Your task to perform on an android device: Is it going to rain tomorrow? Image 0: 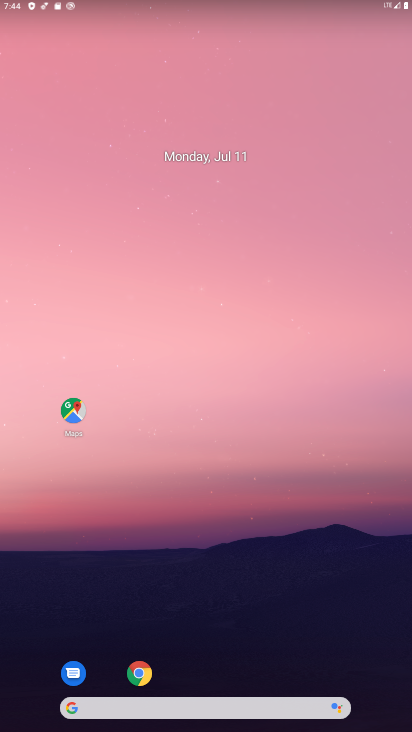
Step 0: drag from (181, 700) to (130, 449)
Your task to perform on an android device: Is it going to rain tomorrow? Image 1: 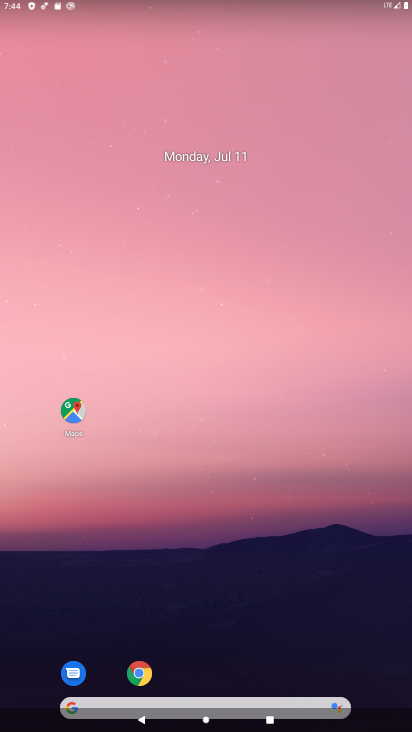
Step 1: drag from (229, 702) to (180, 386)
Your task to perform on an android device: Is it going to rain tomorrow? Image 2: 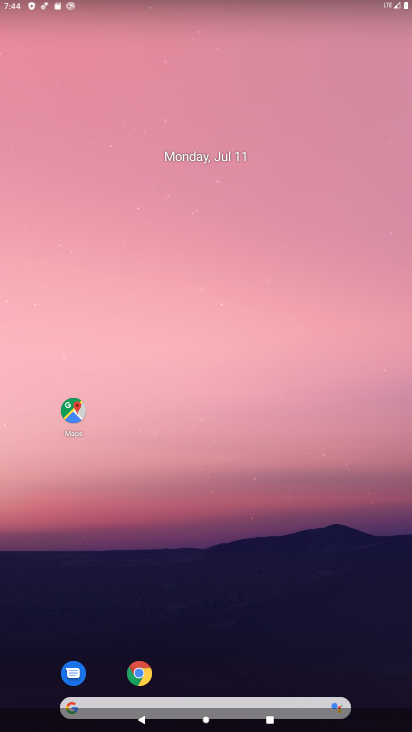
Step 2: drag from (203, 687) to (154, 295)
Your task to perform on an android device: Is it going to rain tomorrow? Image 3: 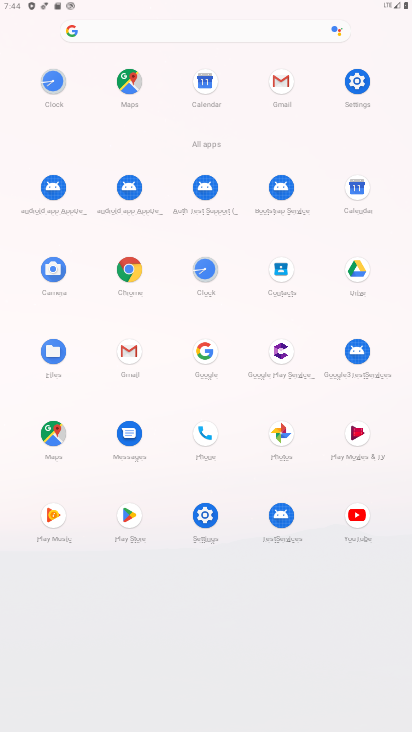
Step 3: click (203, 358)
Your task to perform on an android device: Is it going to rain tomorrow? Image 4: 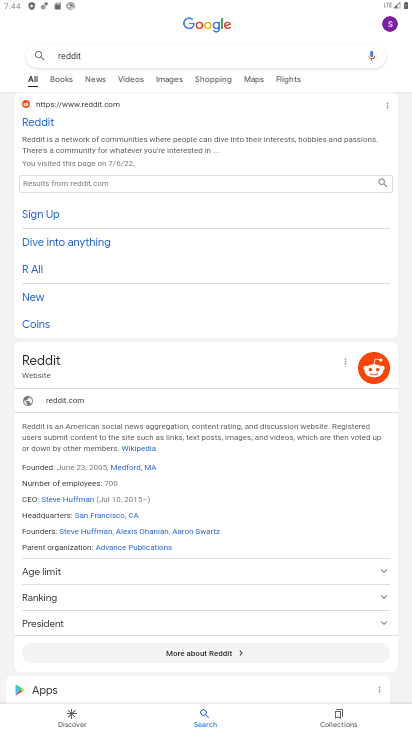
Step 4: click (62, 57)
Your task to perform on an android device: Is it going to rain tomorrow? Image 5: 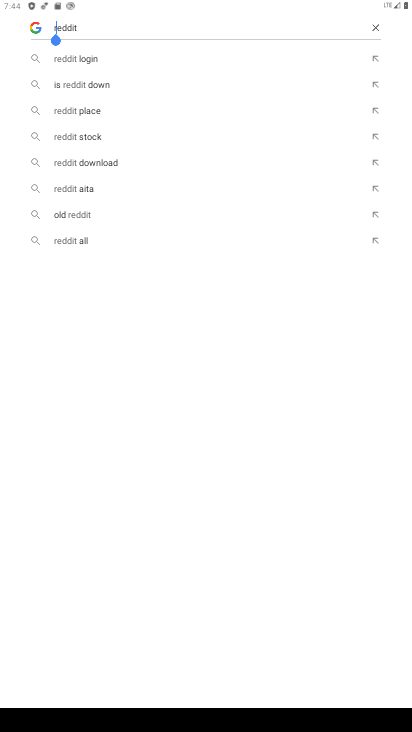
Step 5: click (375, 26)
Your task to perform on an android device: Is it going to rain tomorrow? Image 6: 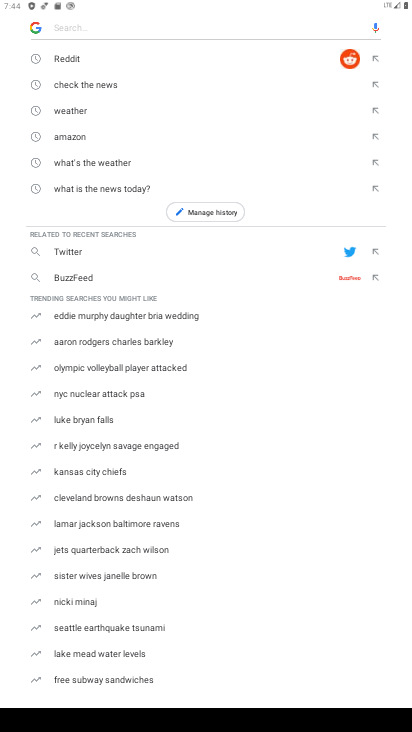
Step 6: click (200, 213)
Your task to perform on an android device: Is it going to rain tomorrow? Image 7: 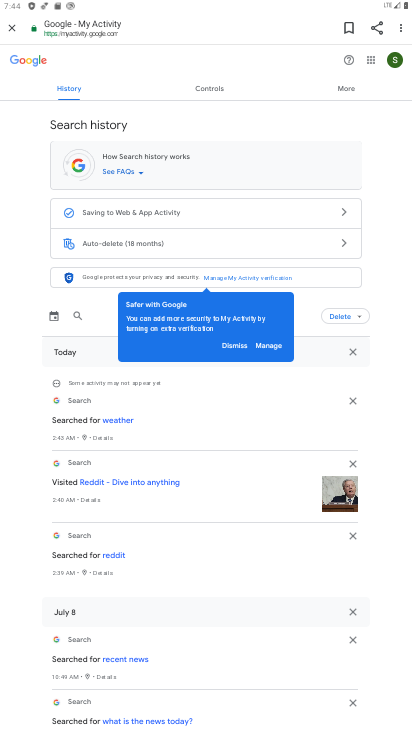
Step 7: click (10, 26)
Your task to perform on an android device: Is it going to rain tomorrow? Image 8: 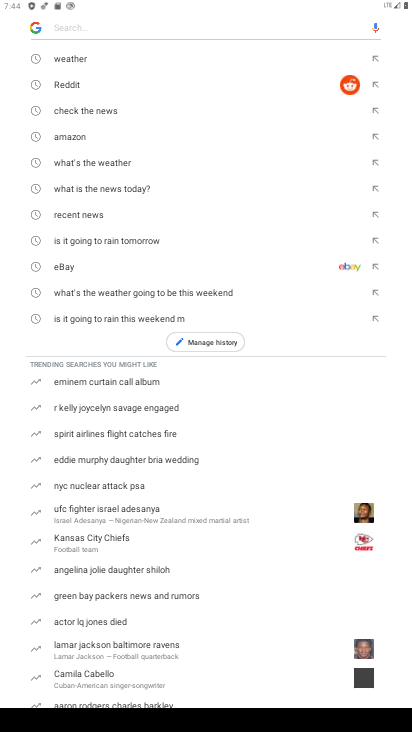
Step 8: click (70, 25)
Your task to perform on an android device: Is it going to rain tomorrow? Image 9: 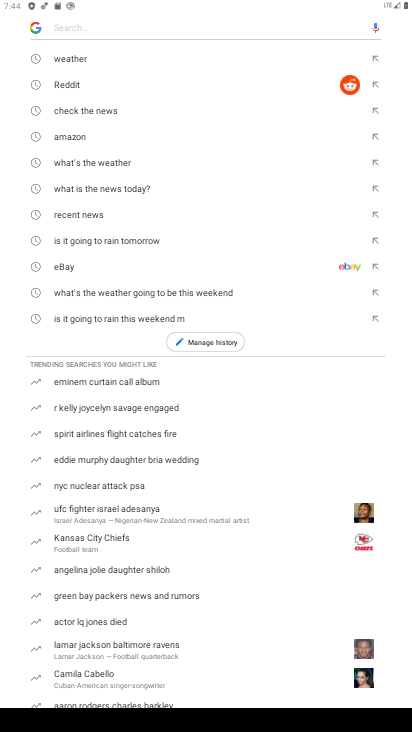
Step 9: click (104, 236)
Your task to perform on an android device: Is it going to rain tomorrow? Image 10: 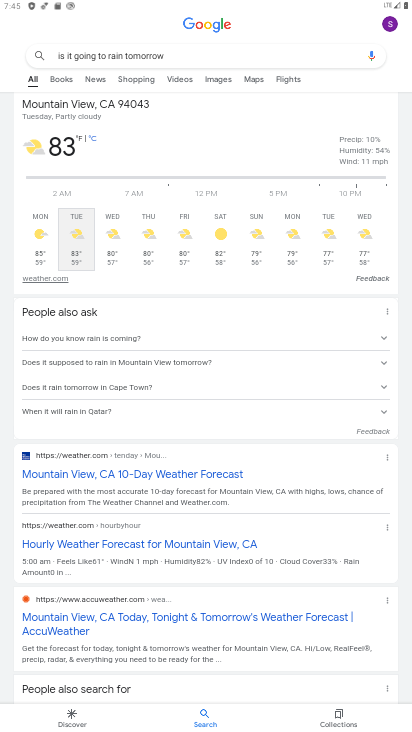
Step 10: task complete